Your task to perform on an android device: Go to wifi settings Image 0: 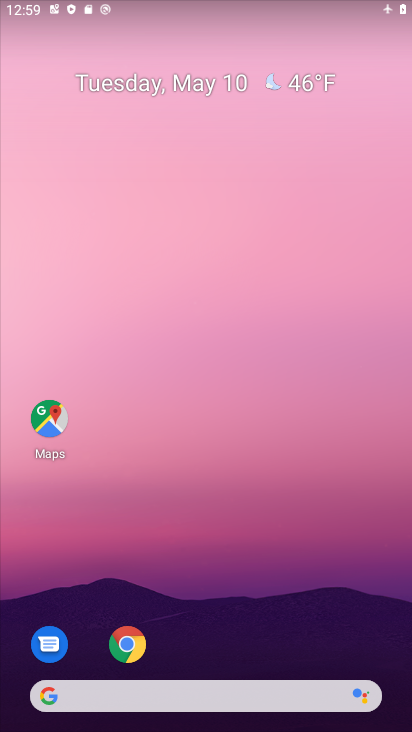
Step 0: drag from (212, 615) to (213, 244)
Your task to perform on an android device: Go to wifi settings Image 1: 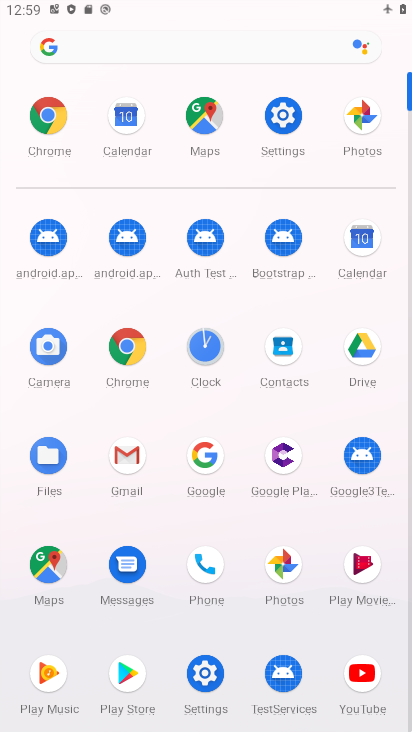
Step 1: click (272, 144)
Your task to perform on an android device: Go to wifi settings Image 2: 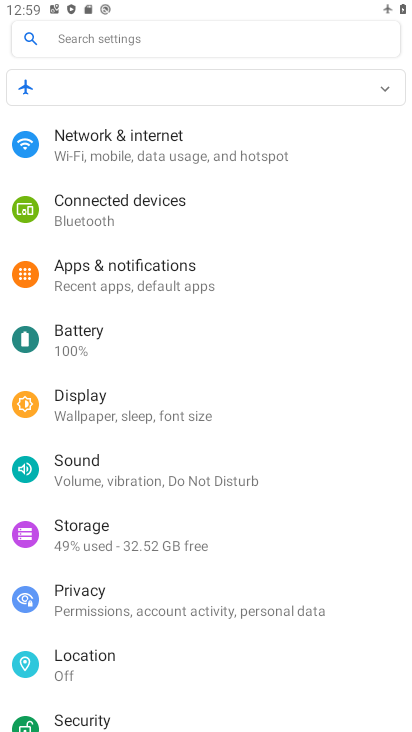
Step 2: click (213, 170)
Your task to perform on an android device: Go to wifi settings Image 3: 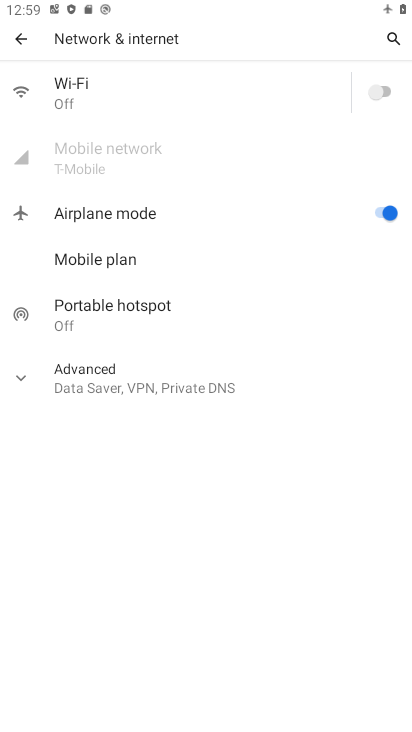
Step 3: click (115, 104)
Your task to perform on an android device: Go to wifi settings Image 4: 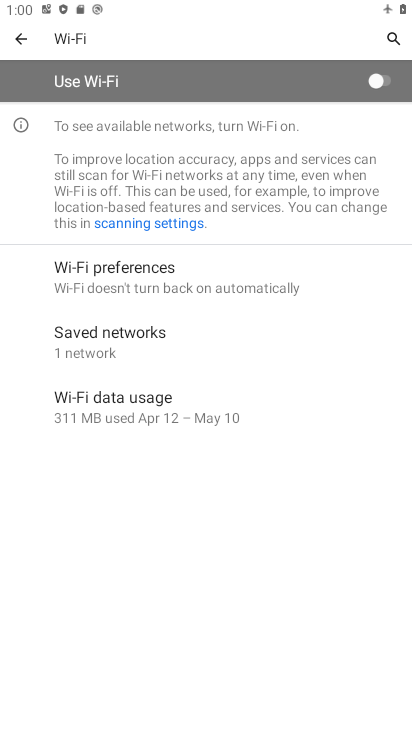
Step 4: task complete